Your task to perform on an android device: turn off location history Image 0: 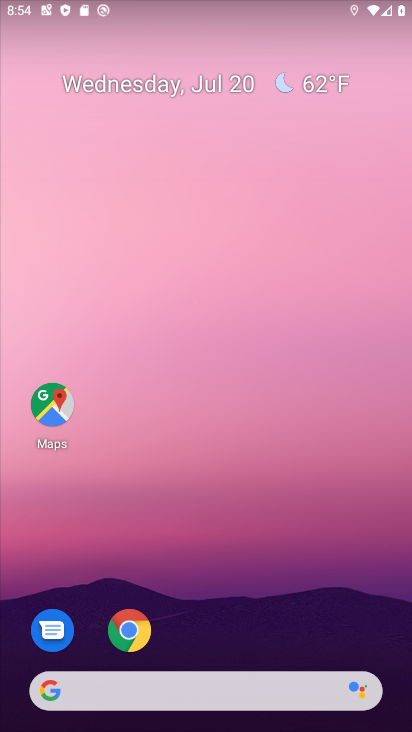
Step 0: drag from (244, 662) to (162, 6)
Your task to perform on an android device: turn off location history Image 1: 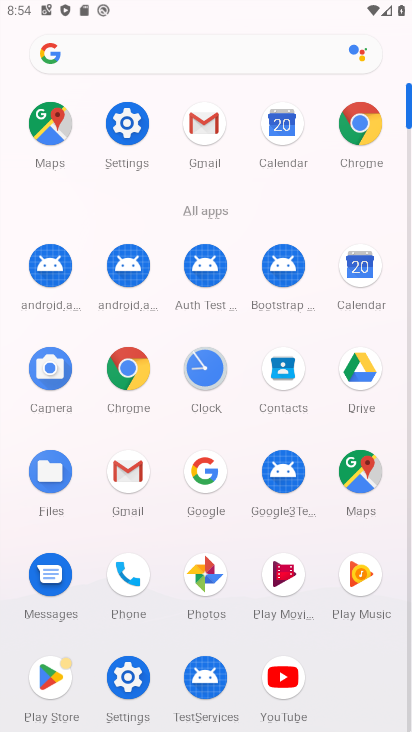
Step 1: click (116, 132)
Your task to perform on an android device: turn off location history Image 2: 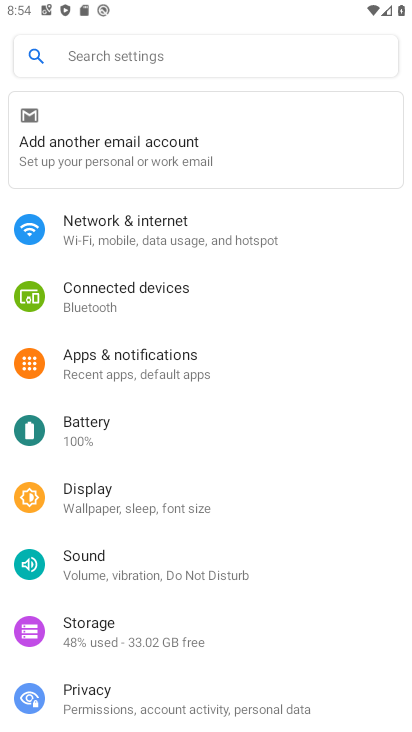
Step 2: drag from (151, 581) to (165, 37)
Your task to perform on an android device: turn off location history Image 3: 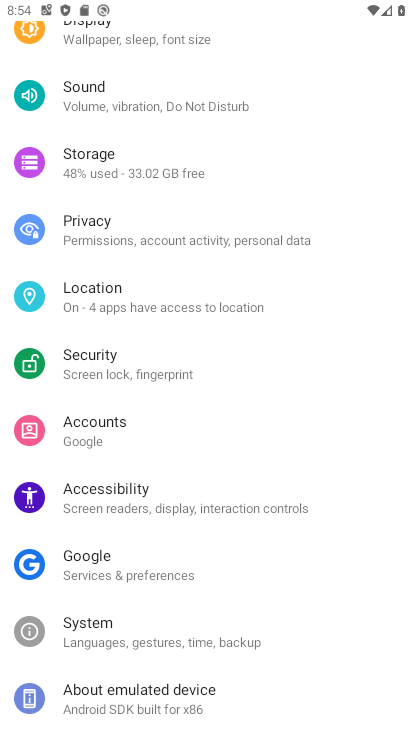
Step 3: click (127, 306)
Your task to perform on an android device: turn off location history Image 4: 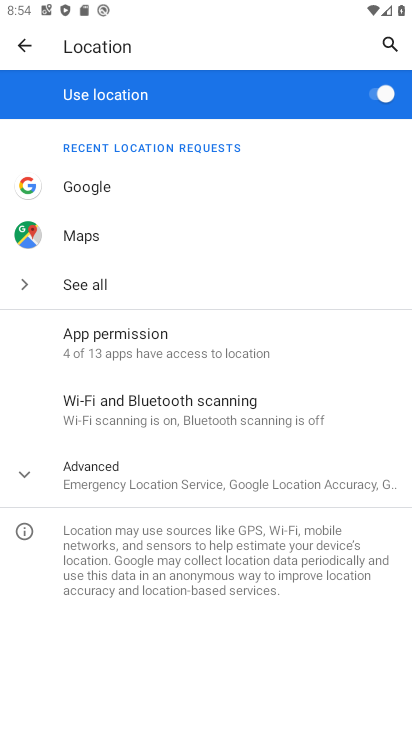
Step 4: click (110, 467)
Your task to perform on an android device: turn off location history Image 5: 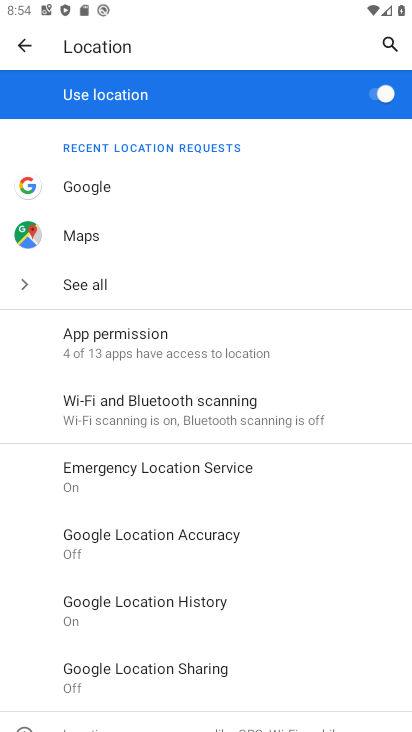
Step 5: click (151, 614)
Your task to perform on an android device: turn off location history Image 6: 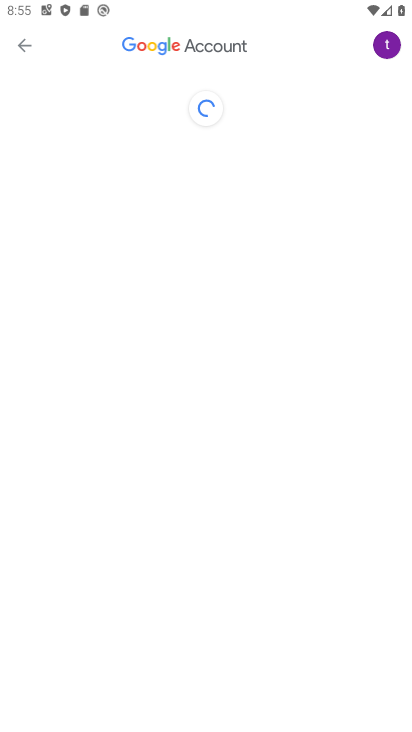
Step 6: click (318, 618)
Your task to perform on an android device: turn off location history Image 7: 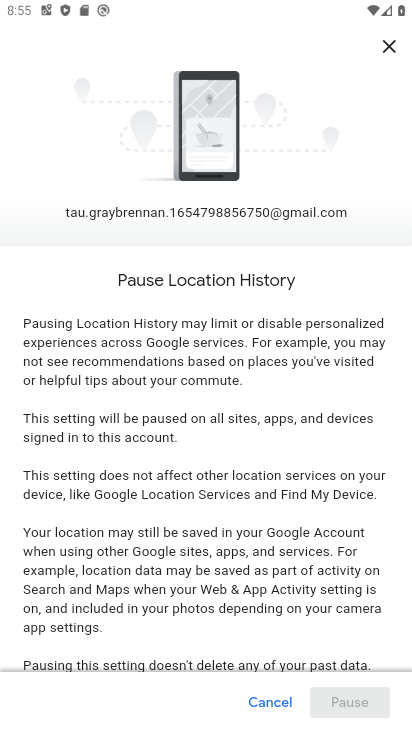
Step 7: drag from (318, 611) to (269, 51)
Your task to perform on an android device: turn off location history Image 8: 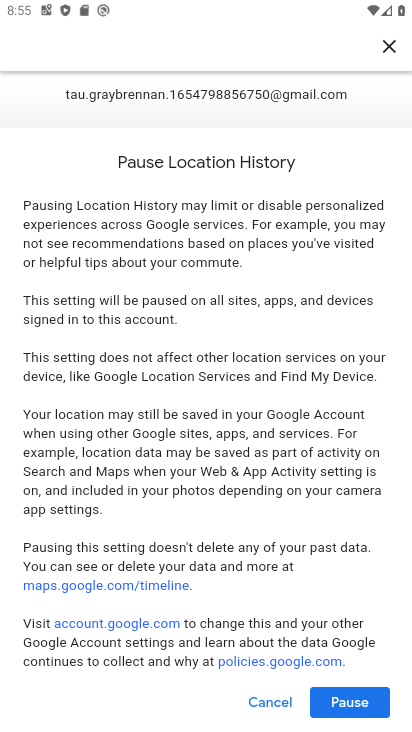
Step 8: click (370, 718)
Your task to perform on an android device: turn off location history Image 9: 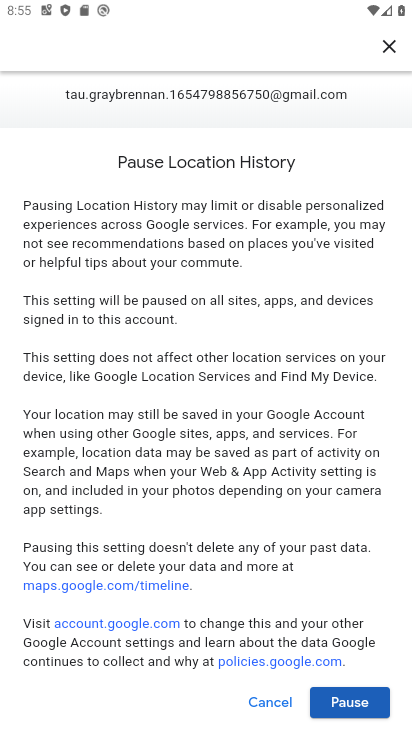
Step 9: click (344, 701)
Your task to perform on an android device: turn off location history Image 10: 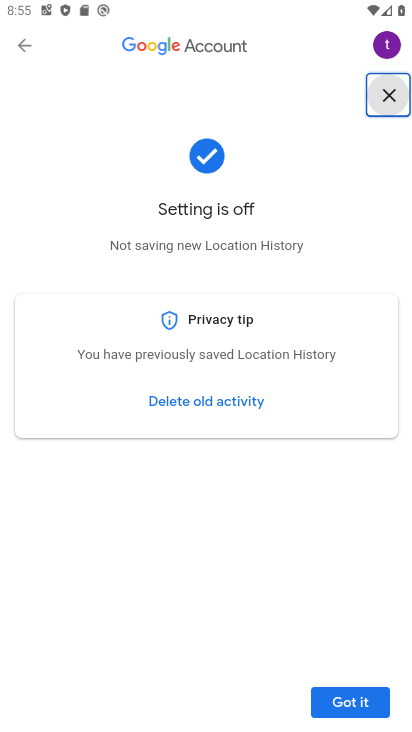
Step 10: click (362, 705)
Your task to perform on an android device: turn off location history Image 11: 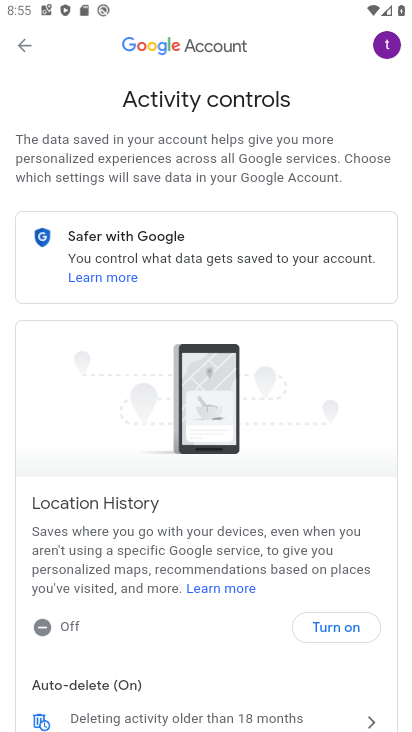
Step 11: task complete